Your task to perform on an android device: Go to notification settings Image 0: 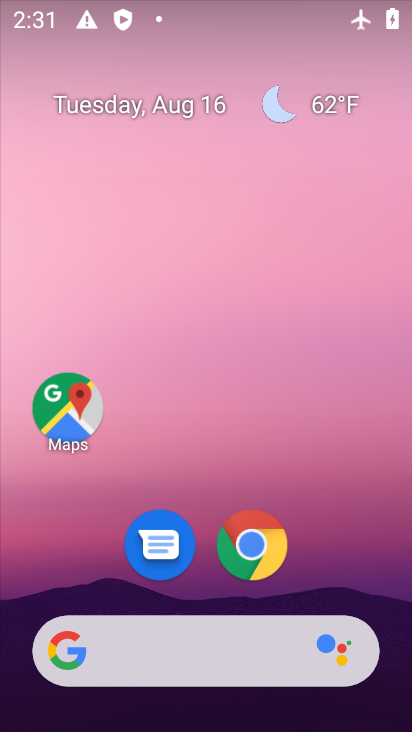
Step 0: drag from (184, 578) to (210, 59)
Your task to perform on an android device: Go to notification settings Image 1: 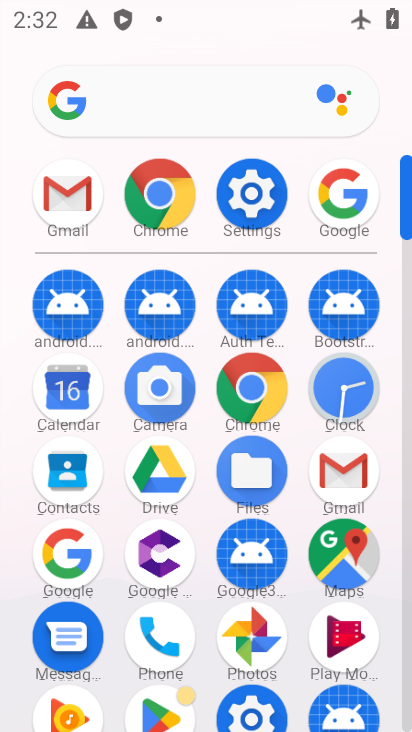
Step 1: click (270, 212)
Your task to perform on an android device: Go to notification settings Image 2: 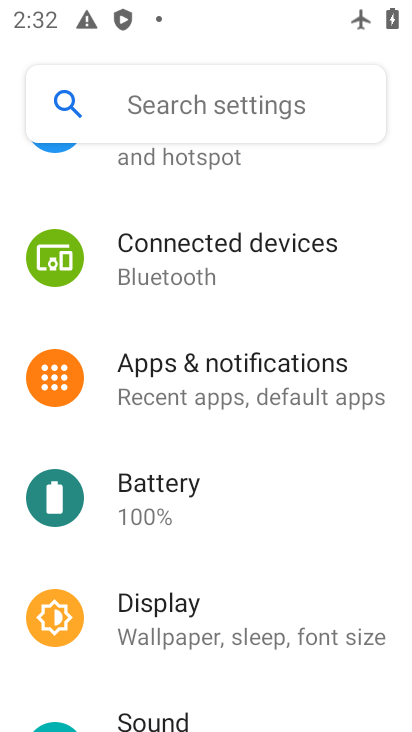
Step 2: click (203, 371)
Your task to perform on an android device: Go to notification settings Image 3: 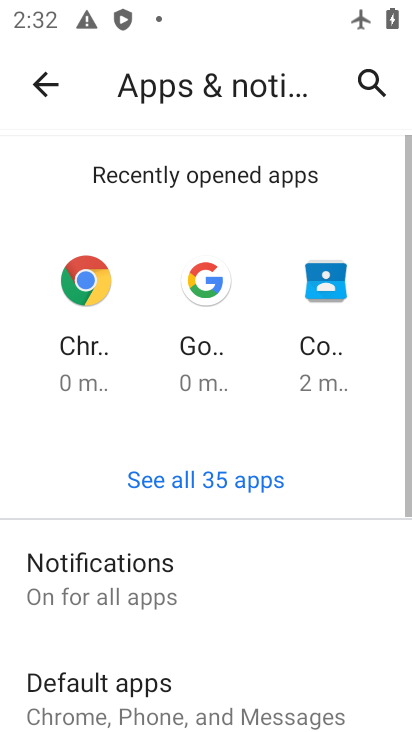
Step 3: drag from (149, 714) to (79, 336)
Your task to perform on an android device: Go to notification settings Image 4: 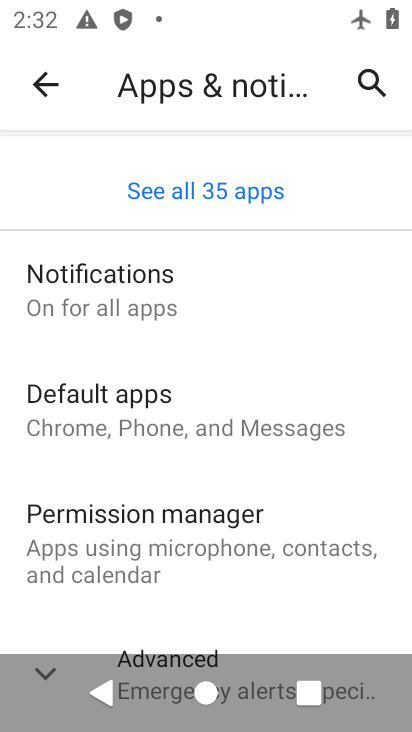
Step 4: drag from (153, 615) to (85, 247)
Your task to perform on an android device: Go to notification settings Image 5: 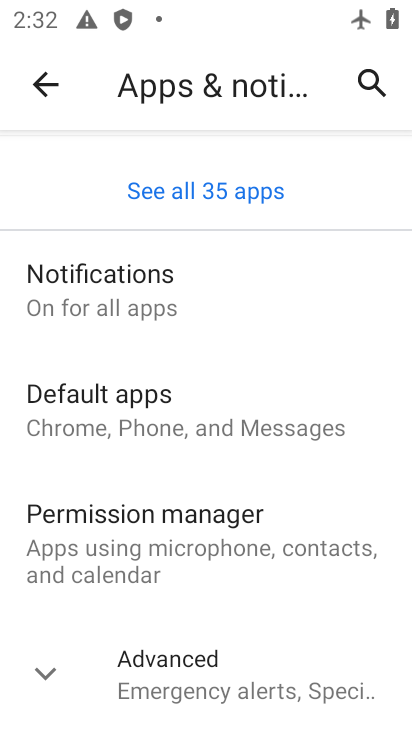
Step 5: click (170, 663)
Your task to perform on an android device: Go to notification settings Image 6: 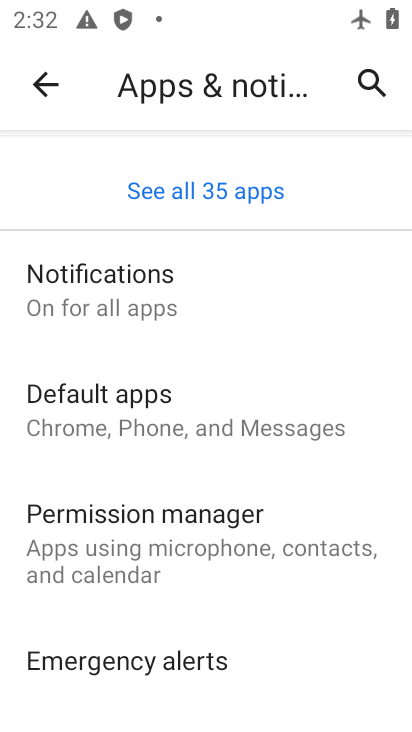
Step 6: task complete